Your task to perform on an android device: Open settings on Google Maps Image 0: 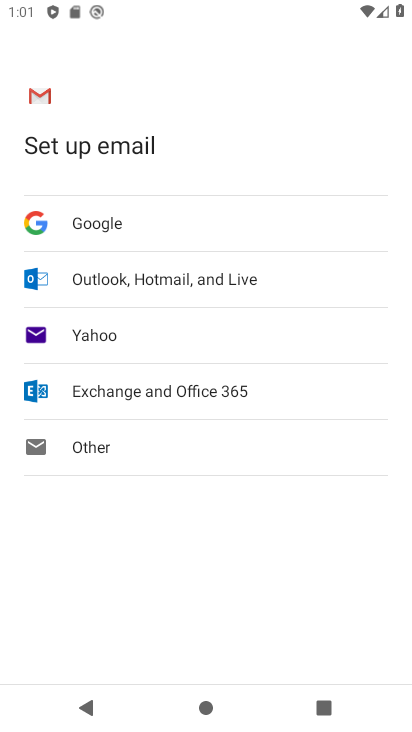
Step 0: press home button
Your task to perform on an android device: Open settings on Google Maps Image 1: 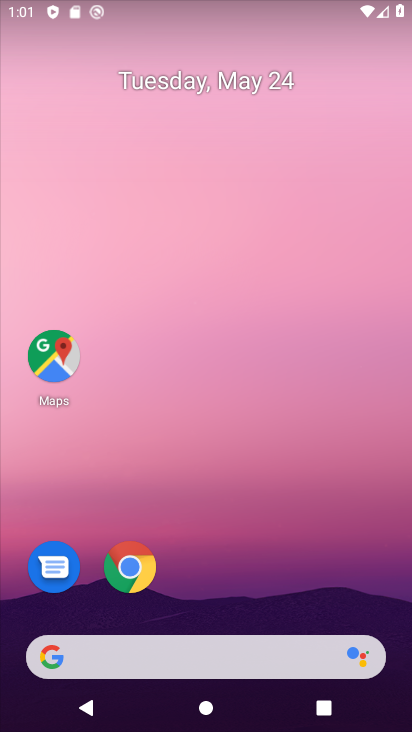
Step 1: drag from (231, 532) to (317, 17)
Your task to perform on an android device: Open settings on Google Maps Image 2: 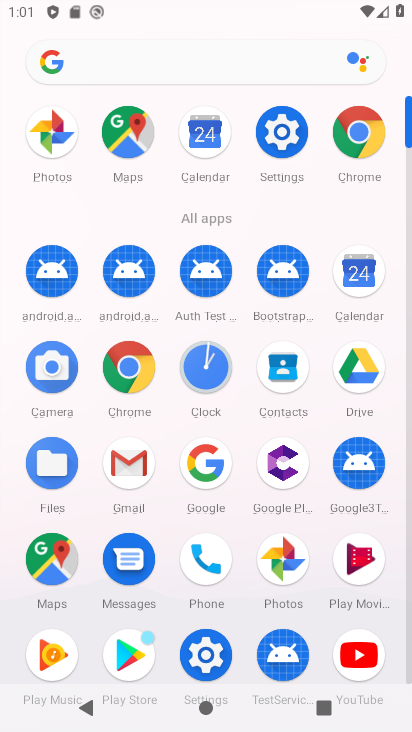
Step 2: click (64, 569)
Your task to perform on an android device: Open settings on Google Maps Image 3: 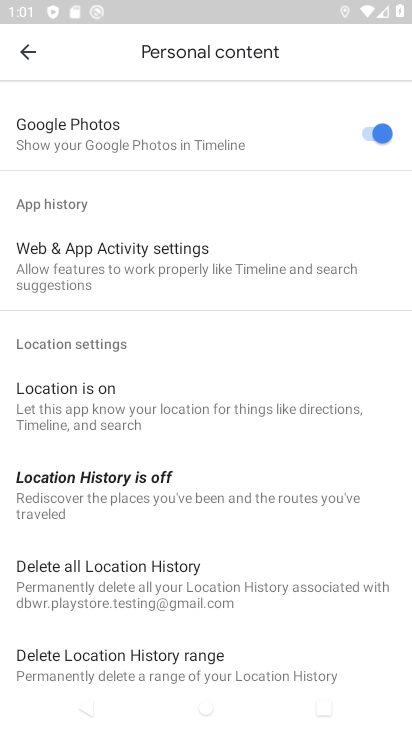
Step 3: click (34, 52)
Your task to perform on an android device: Open settings on Google Maps Image 4: 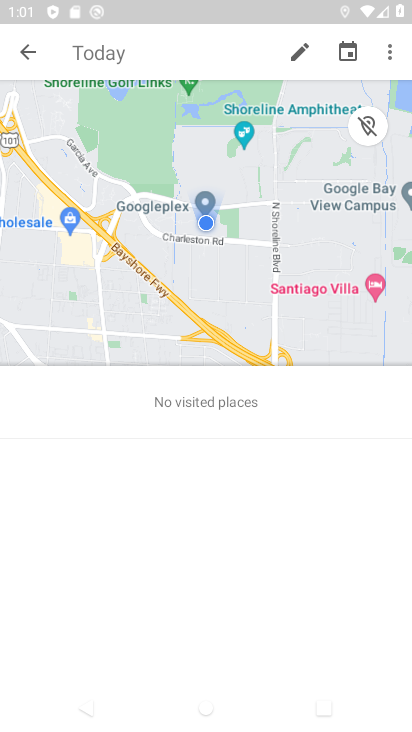
Step 4: click (34, 52)
Your task to perform on an android device: Open settings on Google Maps Image 5: 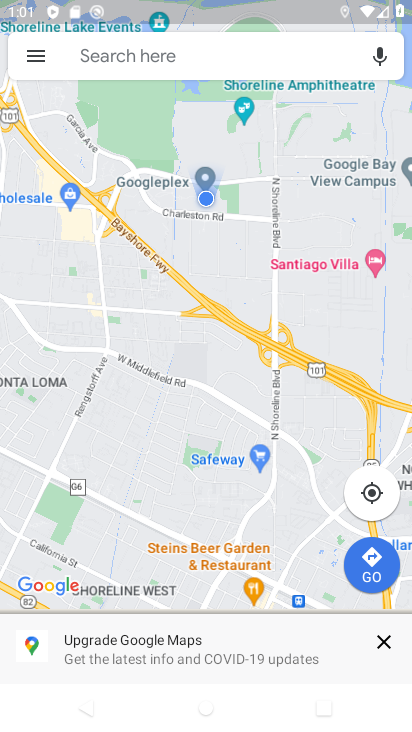
Step 5: click (40, 62)
Your task to perform on an android device: Open settings on Google Maps Image 6: 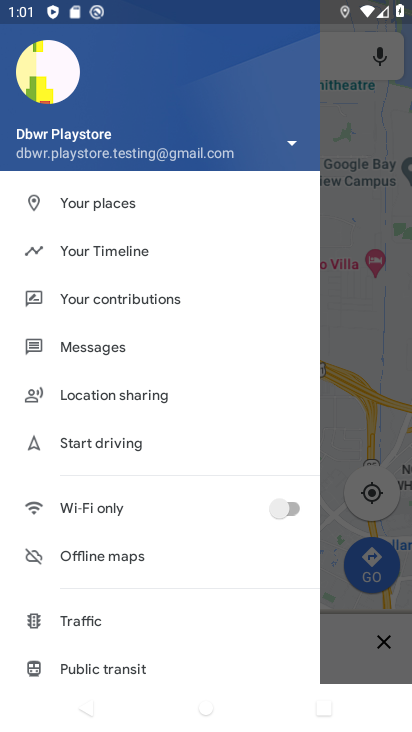
Step 6: drag from (102, 556) to (136, 331)
Your task to perform on an android device: Open settings on Google Maps Image 7: 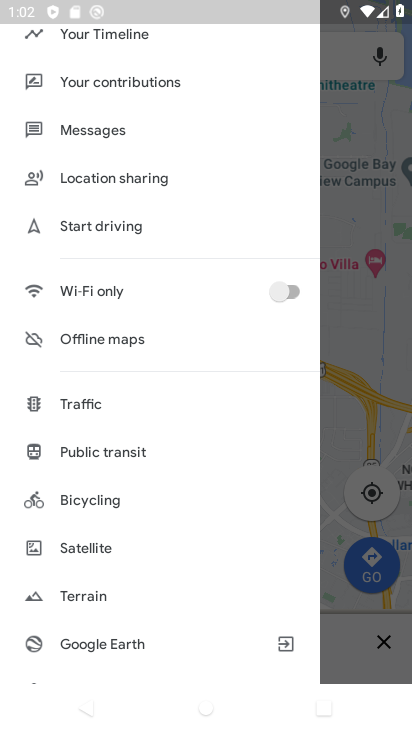
Step 7: drag from (83, 590) to (134, 364)
Your task to perform on an android device: Open settings on Google Maps Image 8: 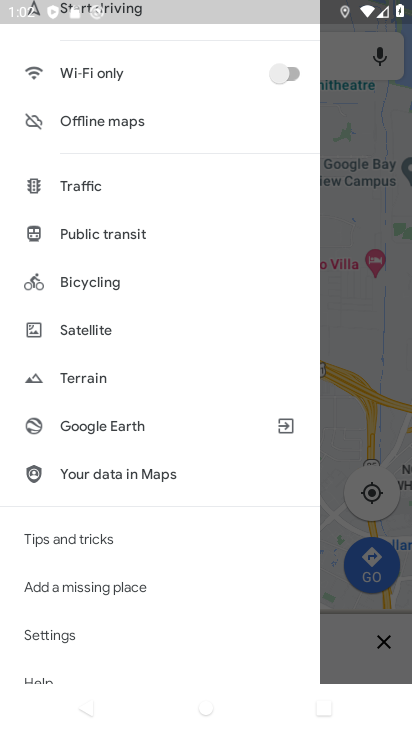
Step 8: click (77, 634)
Your task to perform on an android device: Open settings on Google Maps Image 9: 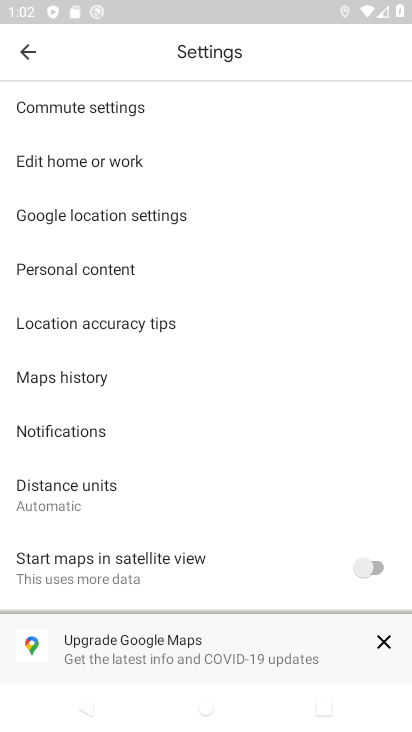
Step 9: task complete